Your task to perform on an android device: turn off sleep mode Image 0: 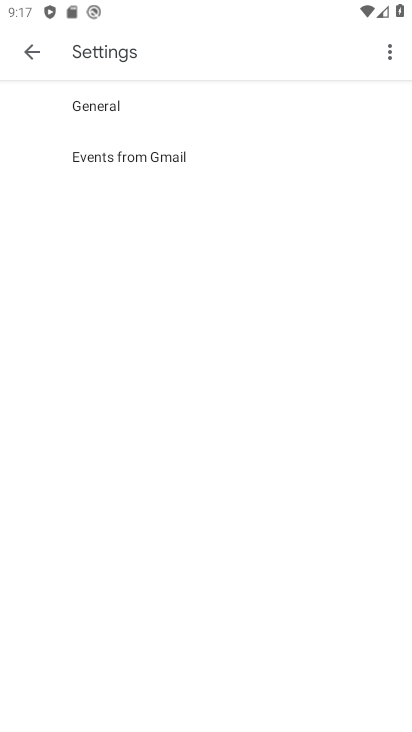
Step 0: press home button
Your task to perform on an android device: turn off sleep mode Image 1: 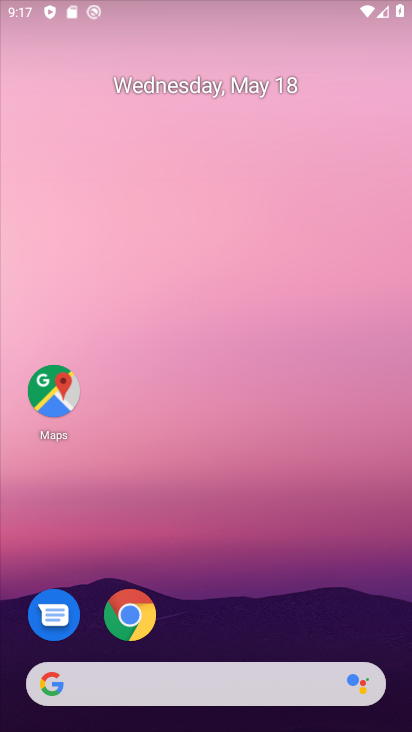
Step 1: drag from (206, 621) to (229, 125)
Your task to perform on an android device: turn off sleep mode Image 2: 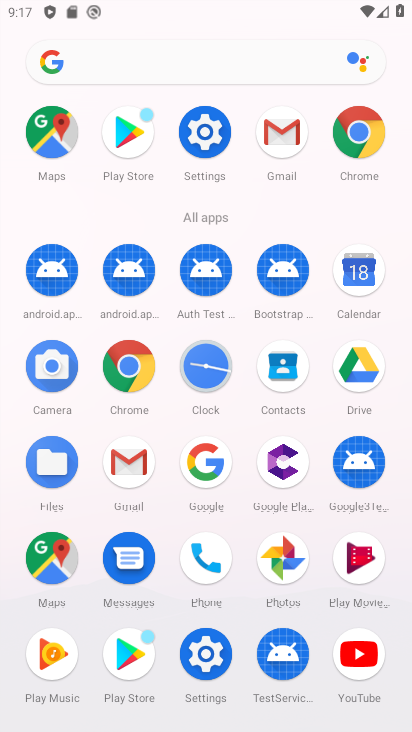
Step 2: click (207, 134)
Your task to perform on an android device: turn off sleep mode Image 3: 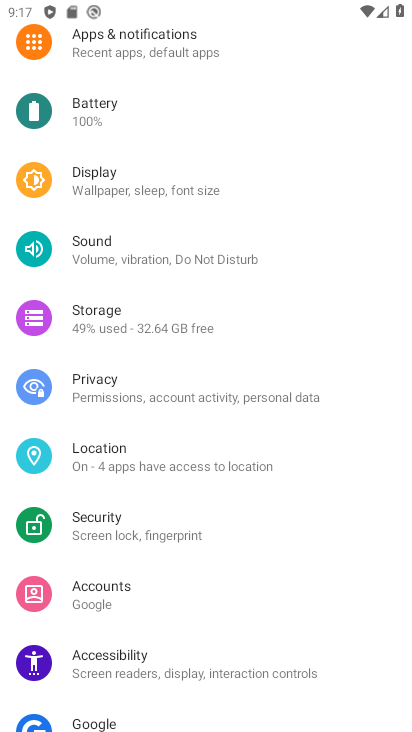
Step 3: click (137, 187)
Your task to perform on an android device: turn off sleep mode Image 4: 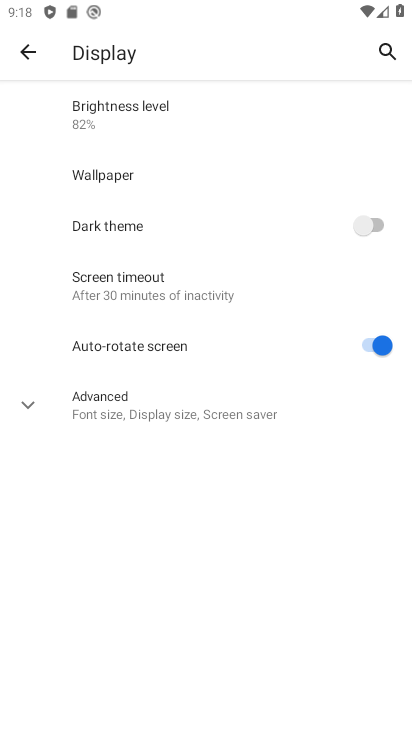
Step 4: click (150, 285)
Your task to perform on an android device: turn off sleep mode Image 5: 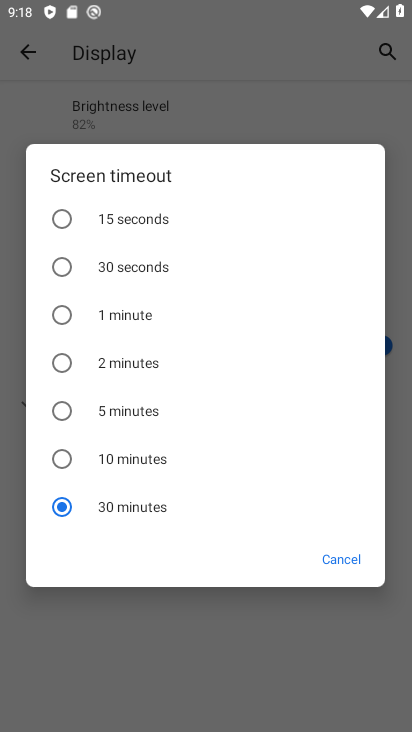
Step 5: task complete